Your task to perform on an android device: Open the map Image 0: 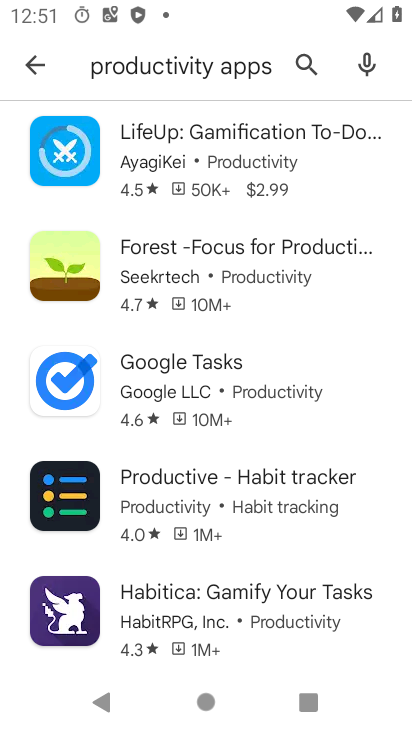
Step 0: press home button
Your task to perform on an android device: Open the map Image 1: 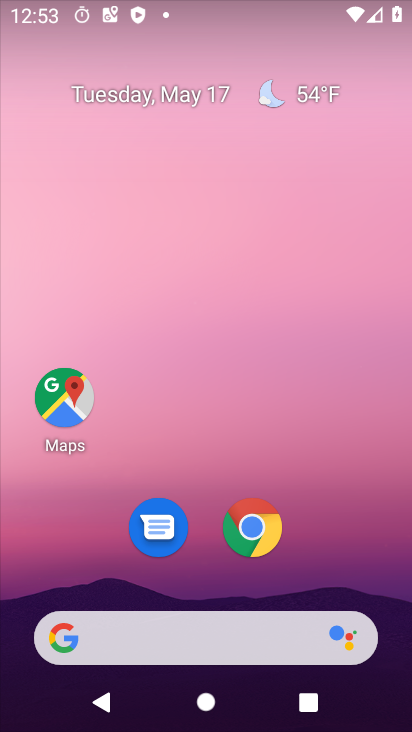
Step 1: drag from (268, 673) to (304, 185)
Your task to perform on an android device: Open the map Image 2: 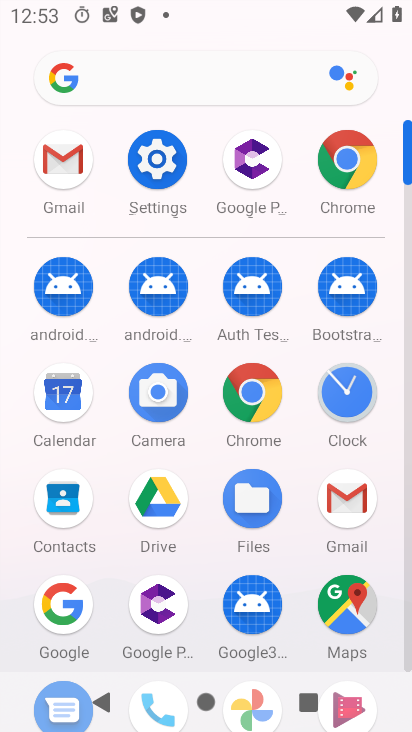
Step 2: click (335, 597)
Your task to perform on an android device: Open the map Image 3: 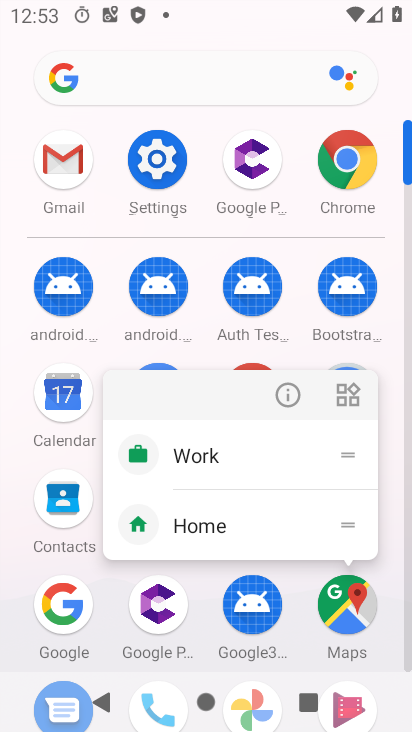
Step 3: click (343, 598)
Your task to perform on an android device: Open the map Image 4: 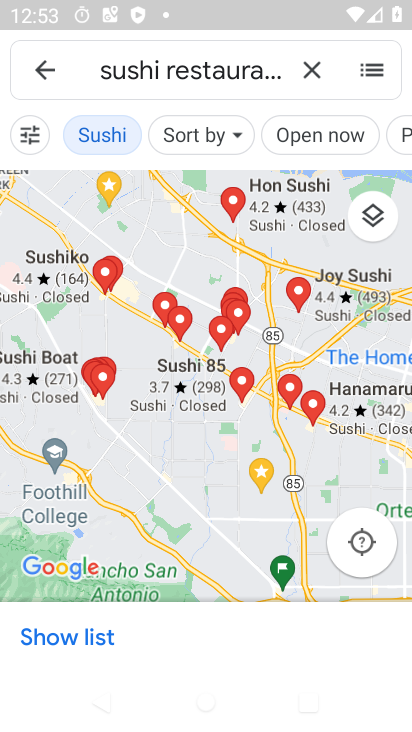
Step 4: click (363, 531)
Your task to perform on an android device: Open the map Image 5: 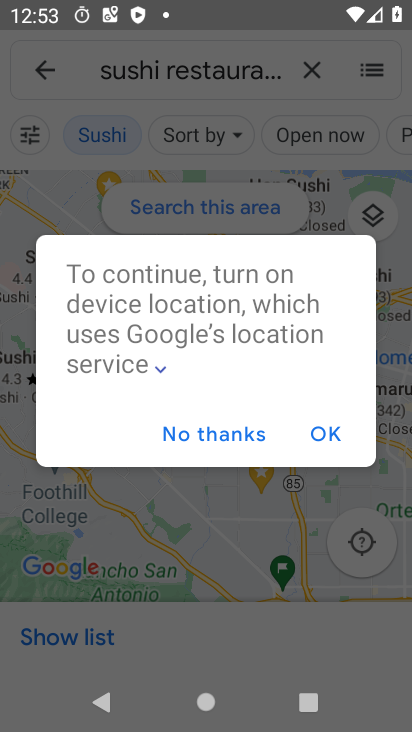
Step 5: click (233, 439)
Your task to perform on an android device: Open the map Image 6: 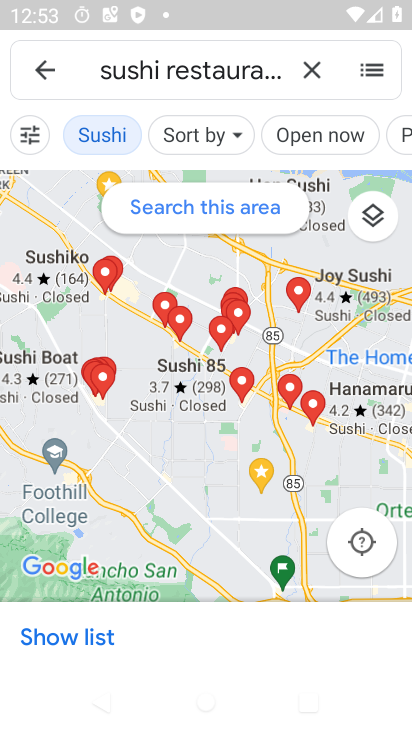
Step 6: task complete